Your task to perform on an android device: Open network settings Image 0: 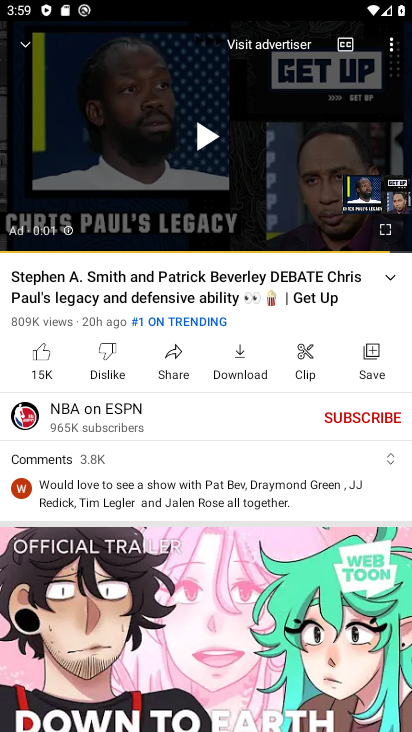
Step 0: press home button
Your task to perform on an android device: Open network settings Image 1: 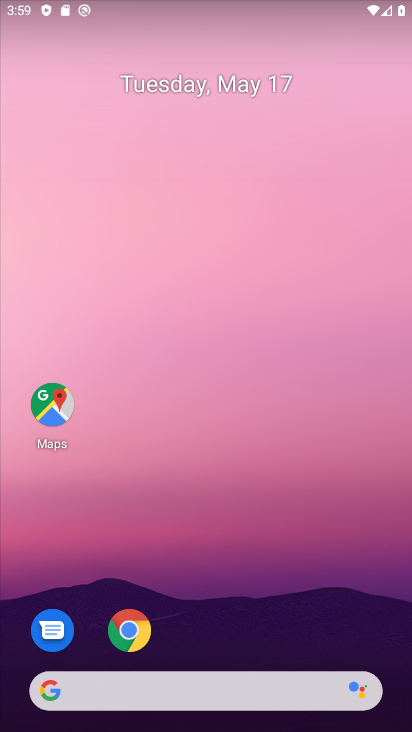
Step 1: drag from (221, 727) to (215, 145)
Your task to perform on an android device: Open network settings Image 2: 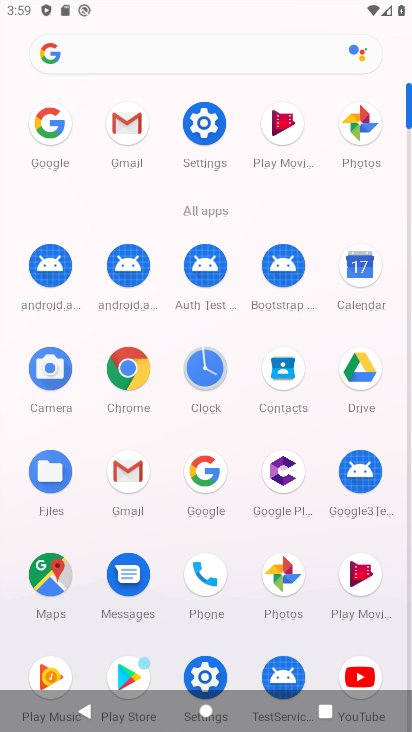
Step 2: click (198, 127)
Your task to perform on an android device: Open network settings Image 3: 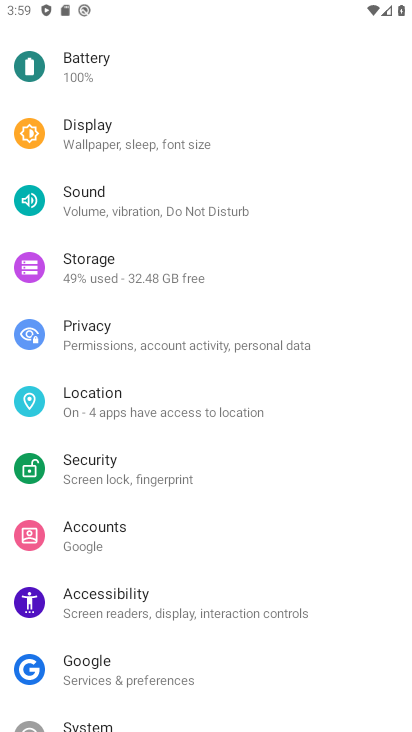
Step 3: drag from (196, 126) to (190, 583)
Your task to perform on an android device: Open network settings Image 4: 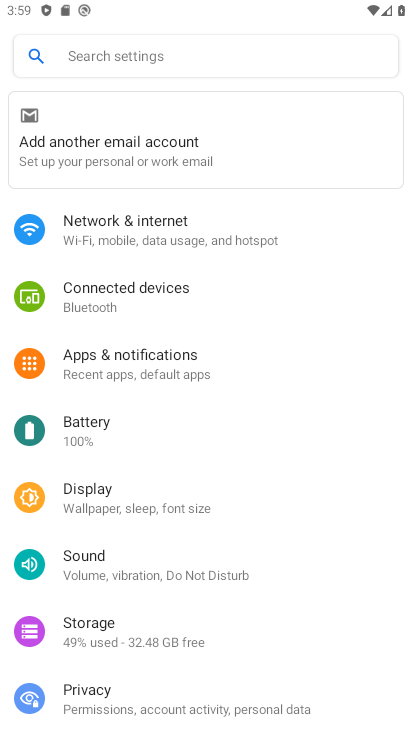
Step 4: click (146, 230)
Your task to perform on an android device: Open network settings Image 5: 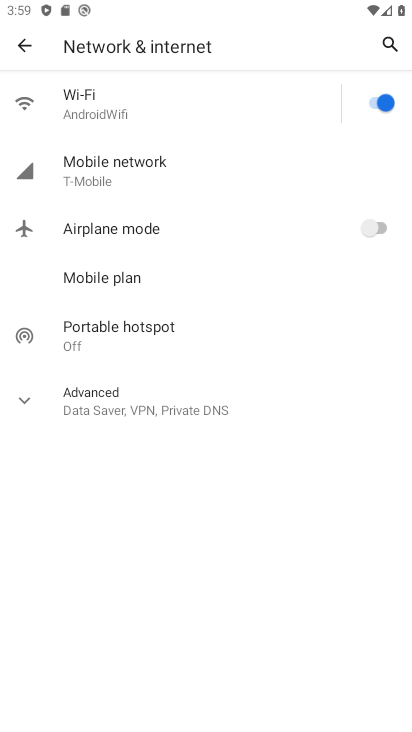
Step 5: click (111, 161)
Your task to perform on an android device: Open network settings Image 6: 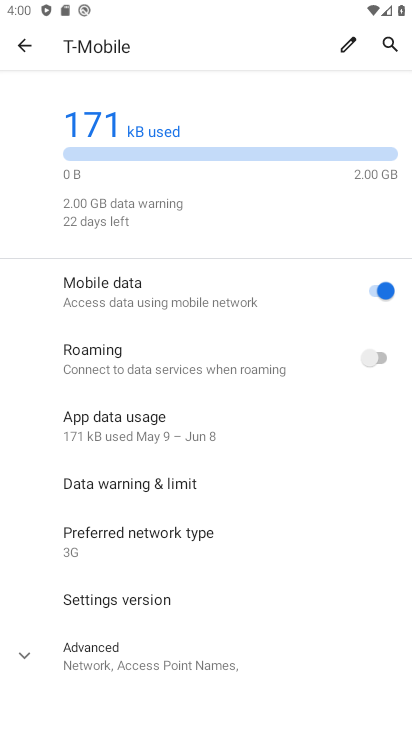
Step 6: task complete